Your task to perform on an android device: check android version Image 0: 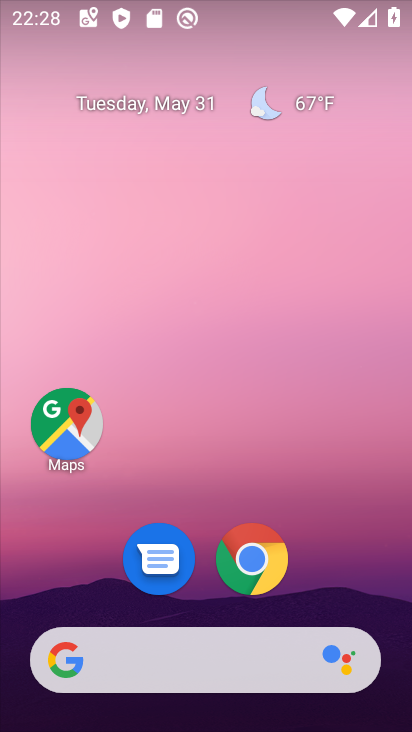
Step 0: drag from (339, 552) to (303, 97)
Your task to perform on an android device: check android version Image 1: 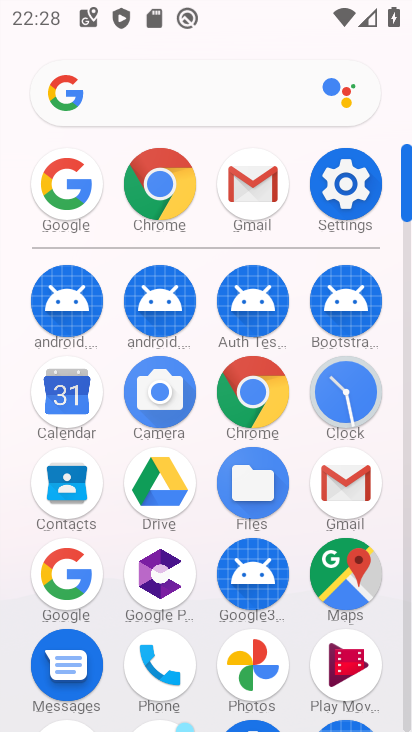
Step 1: click (348, 174)
Your task to perform on an android device: check android version Image 2: 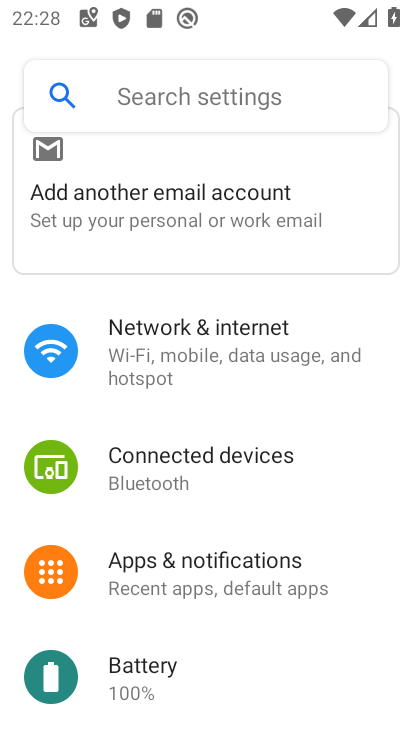
Step 2: drag from (263, 626) to (233, 24)
Your task to perform on an android device: check android version Image 3: 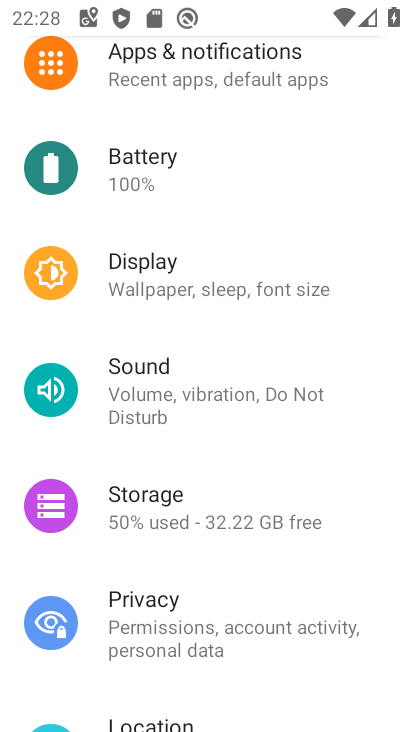
Step 3: drag from (232, 642) to (210, 80)
Your task to perform on an android device: check android version Image 4: 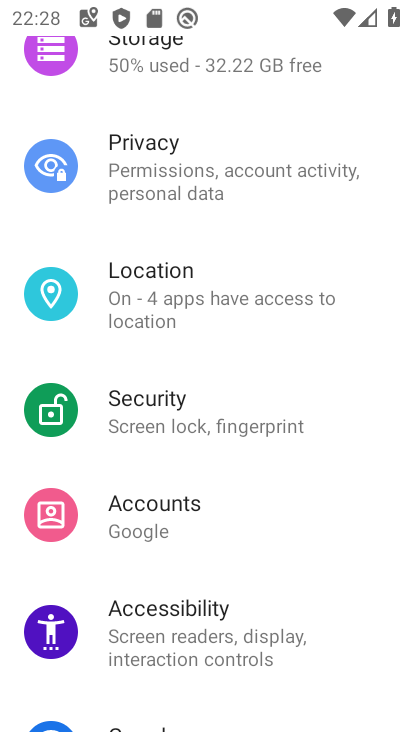
Step 4: drag from (199, 654) to (175, 175)
Your task to perform on an android device: check android version Image 5: 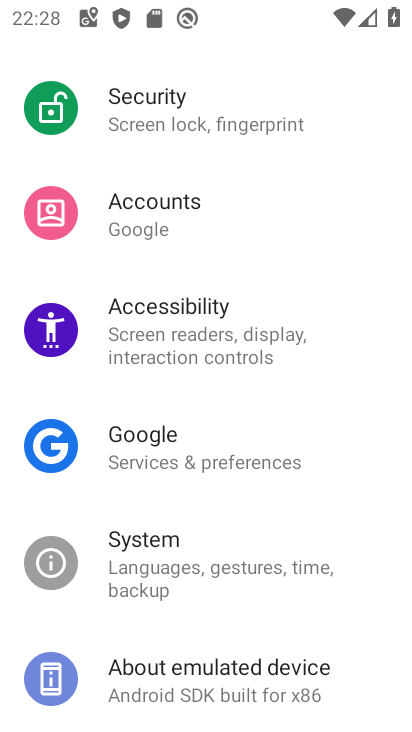
Step 5: click (170, 690)
Your task to perform on an android device: check android version Image 6: 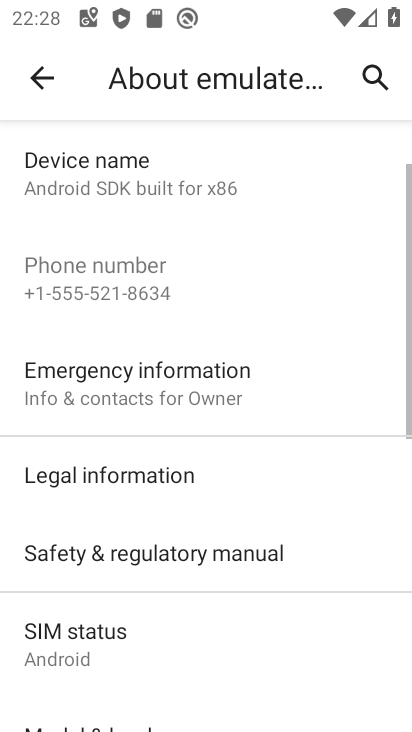
Step 6: drag from (177, 682) to (165, 195)
Your task to perform on an android device: check android version Image 7: 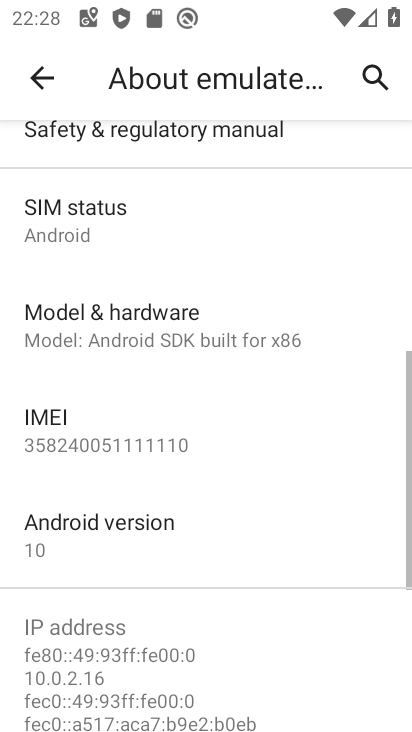
Step 7: click (91, 541)
Your task to perform on an android device: check android version Image 8: 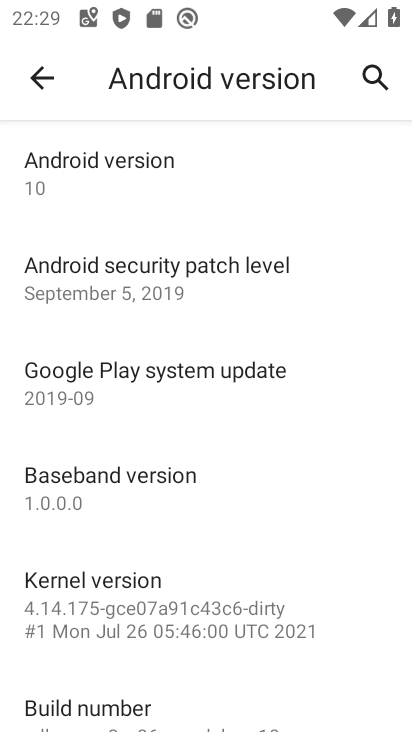
Step 8: task complete